Your task to perform on an android device: choose inbox layout in the gmail app Image 0: 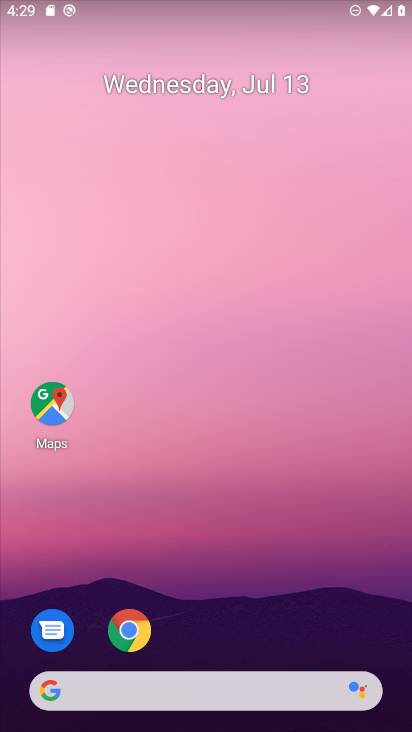
Step 0: drag from (223, 294) to (249, 30)
Your task to perform on an android device: choose inbox layout in the gmail app Image 1: 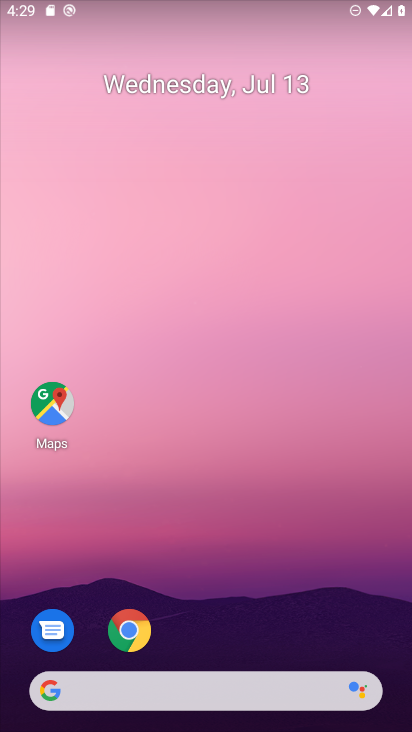
Step 1: drag from (182, 548) to (176, 145)
Your task to perform on an android device: choose inbox layout in the gmail app Image 2: 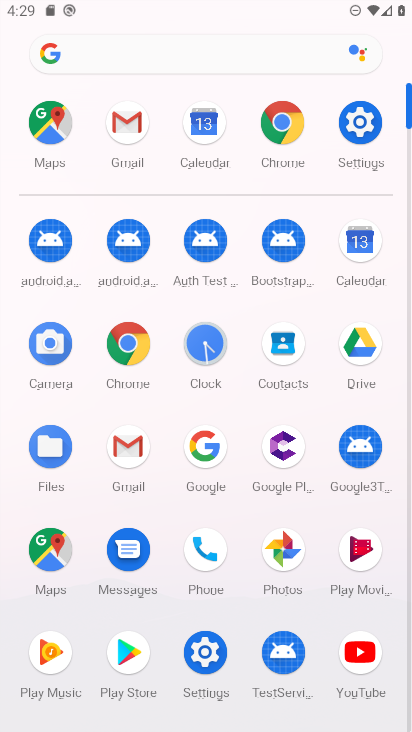
Step 2: click (122, 463)
Your task to perform on an android device: choose inbox layout in the gmail app Image 3: 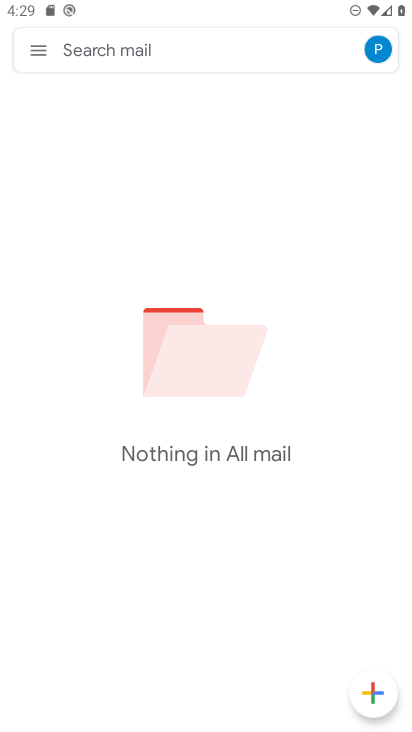
Step 3: click (35, 51)
Your task to perform on an android device: choose inbox layout in the gmail app Image 4: 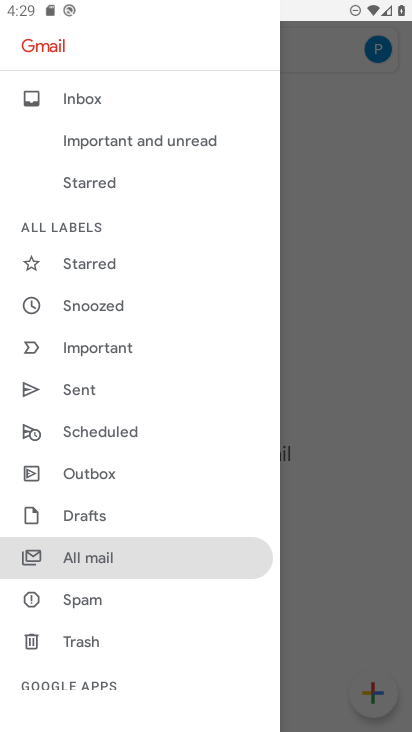
Step 4: drag from (97, 638) to (102, 335)
Your task to perform on an android device: choose inbox layout in the gmail app Image 5: 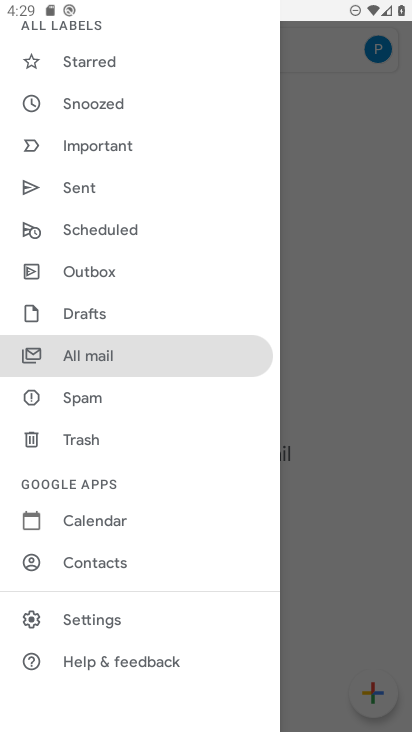
Step 5: click (76, 616)
Your task to perform on an android device: choose inbox layout in the gmail app Image 6: 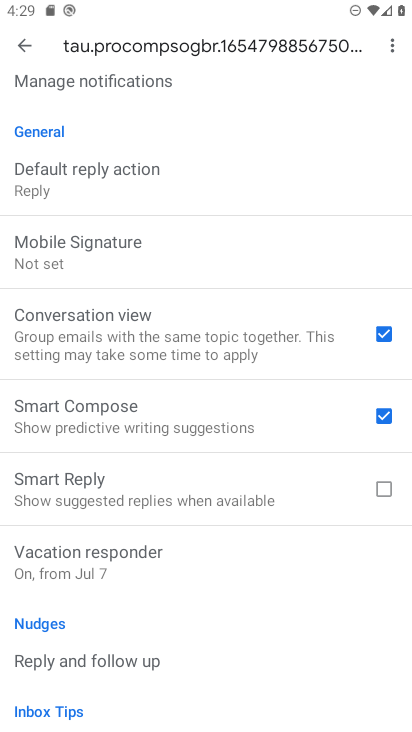
Step 6: drag from (187, 211) to (249, 594)
Your task to perform on an android device: choose inbox layout in the gmail app Image 7: 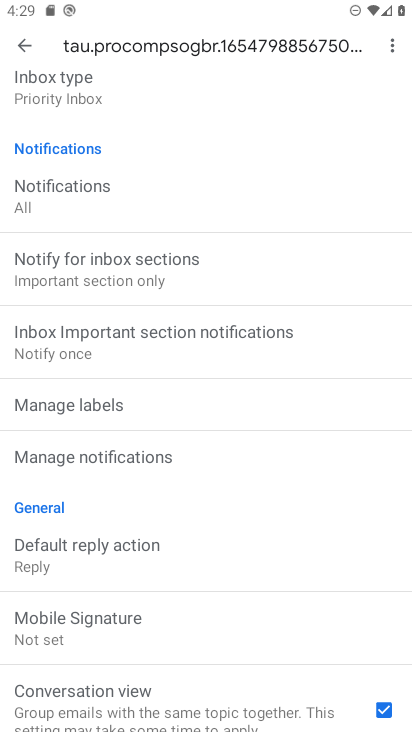
Step 7: drag from (169, 170) to (115, 605)
Your task to perform on an android device: choose inbox layout in the gmail app Image 8: 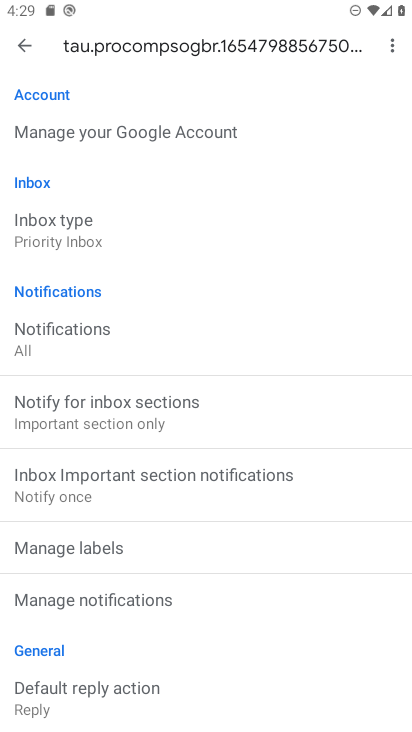
Step 8: drag from (150, 238) to (163, 707)
Your task to perform on an android device: choose inbox layout in the gmail app Image 9: 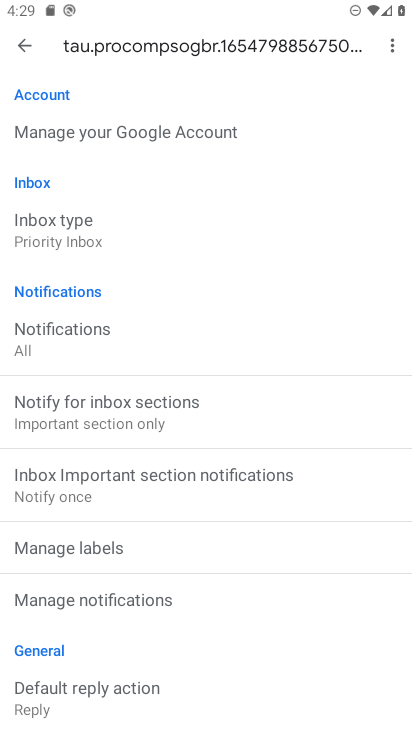
Step 9: click (55, 221)
Your task to perform on an android device: choose inbox layout in the gmail app Image 10: 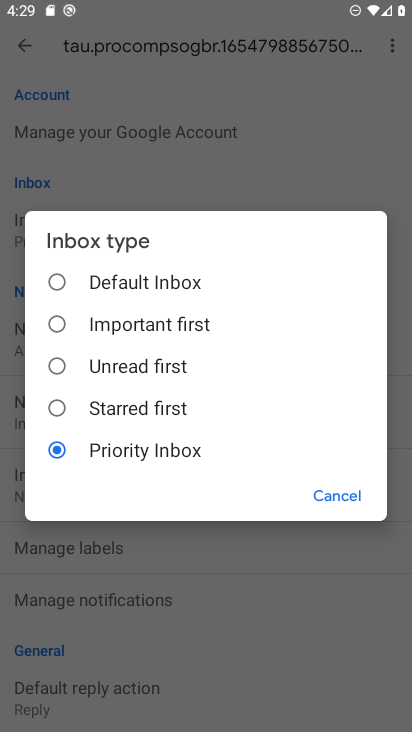
Step 10: click (53, 279)
Your task to perform on an android device: choose inbox layout in the gmail app Image 11: 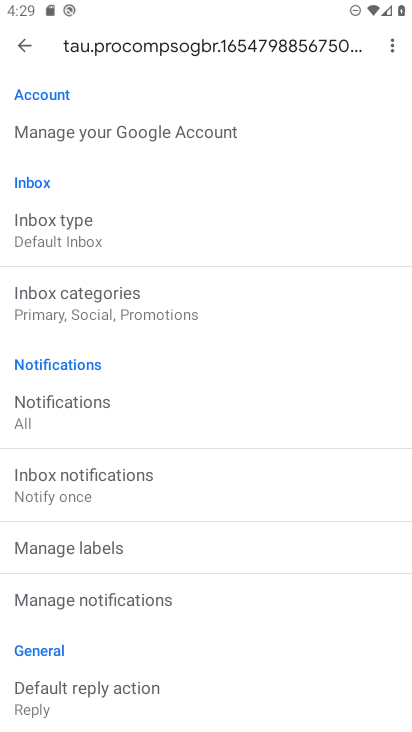
Step 11: task complete